Your task to perform on an android device: Open location settings Image 0: 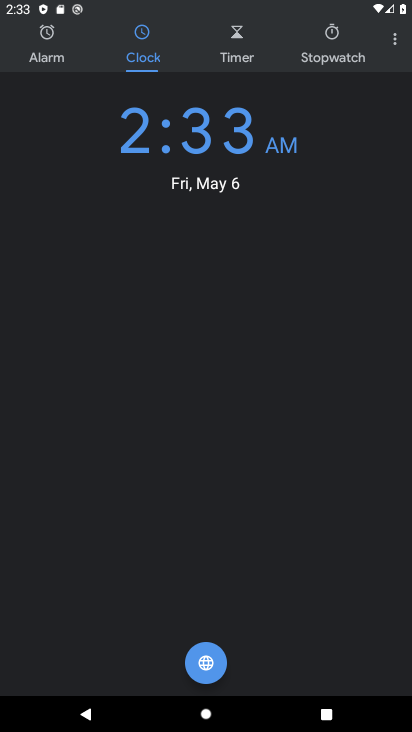
Step 0: press home button
Your task to perform on an android device: Open location settings Image 1: 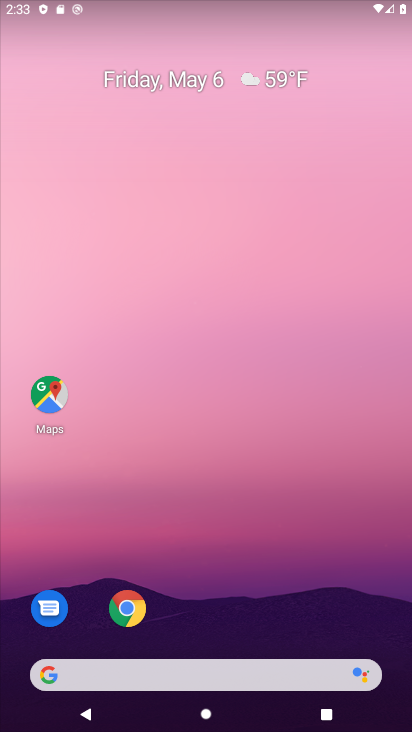
Step 1: drag from (190, 659) to (129, 259)
Your task to perform on an android device: Open location settings Image 2: 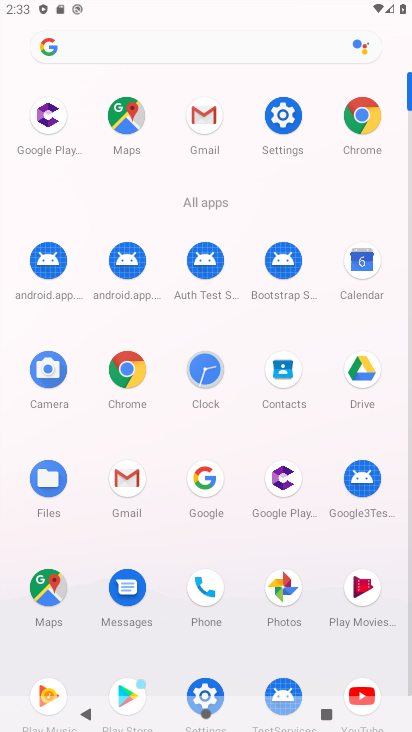
Step 2: click (281, 103)
Your task to perform on an android device: Open location settings Image 3: 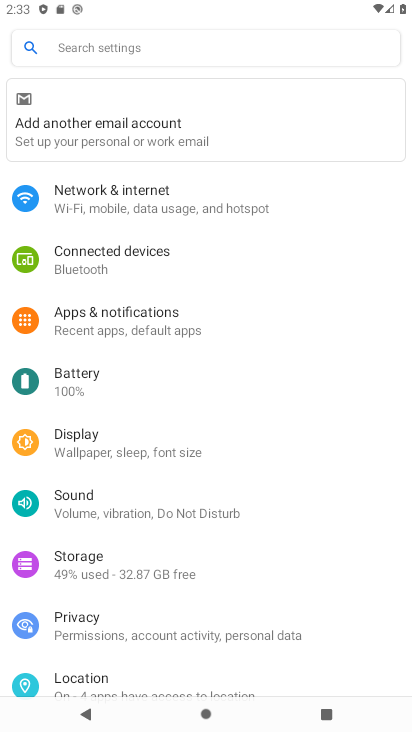
Step 3: click (90, 678)
Your task to perform on an android device: Open location settings Image 4: 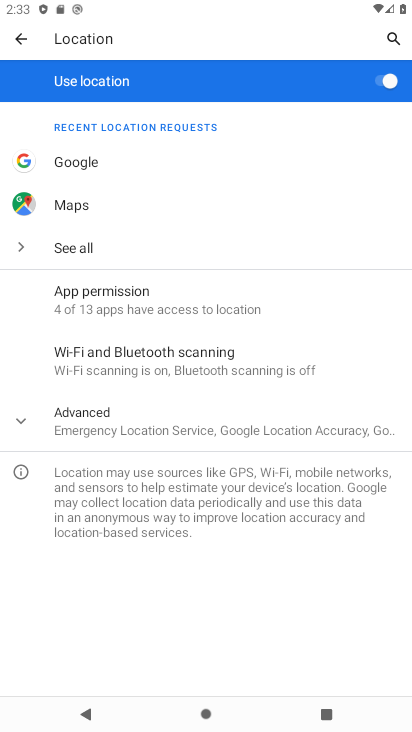
Step 4: task complete